Your task to perform on an android device: turn on the 12-hour format for clock Image 0: 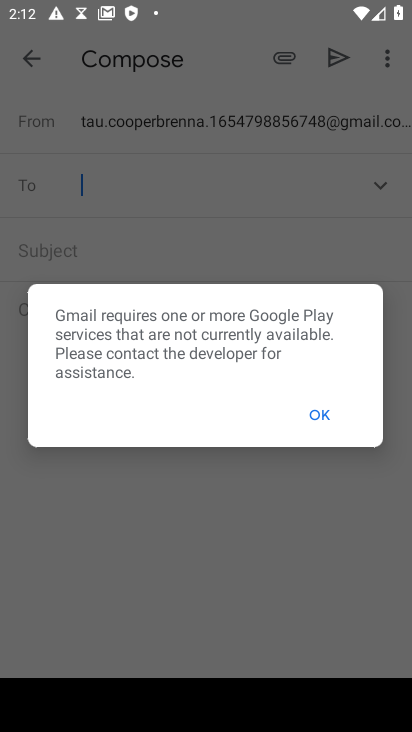
Step 0: press home button
Your task to perform on an android device: turn on the 12-hour format for clock Image 1: 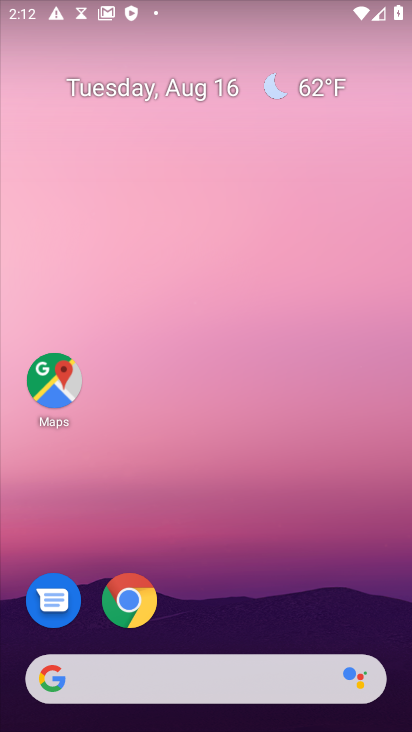
Step 1: drag from (222, 683) to (189, 10)
Your task to perform on an android device: turn on the 12-hour format for clock Image 2: 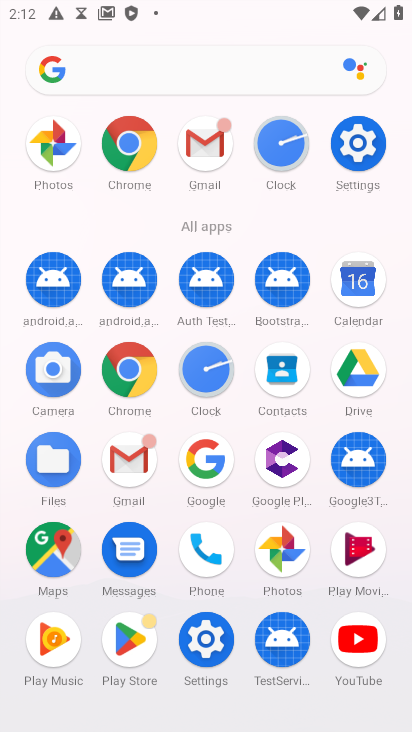
Step 2: click (282, 156)
Your task to perform on an android device: turn on the 12-hour format for clock Image 3: 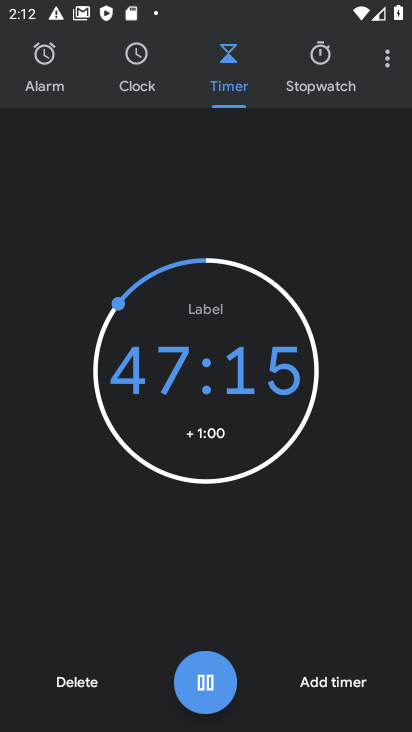
Step 3: press home button
Your task to perform on an android device: turn on the 12-hour format for clock Image 4: 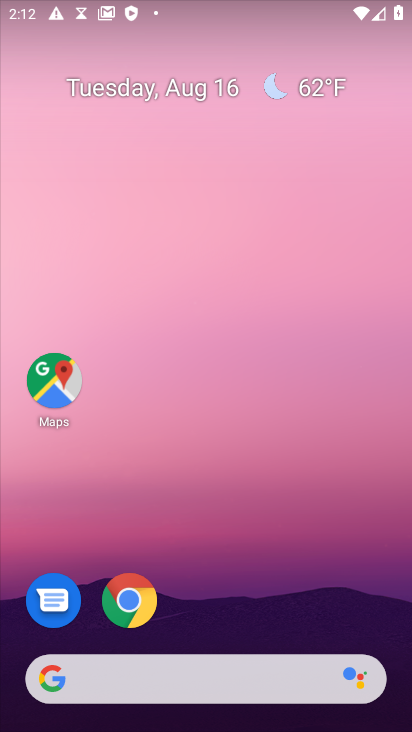
Step 4: drag from (152, 683) to (298, 186)
Your task to perform on an android device: turn on the 12-hour format for clock Image 5: 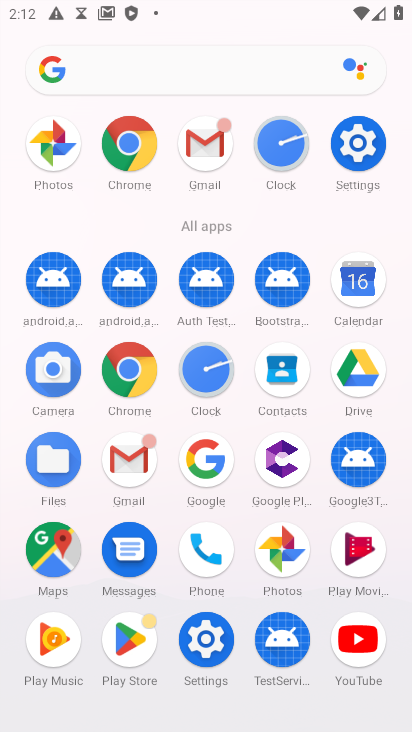
Step 5: click (345, 155)
Your task to perform on an android device: turn on the 12-hour format for clock Image 6: 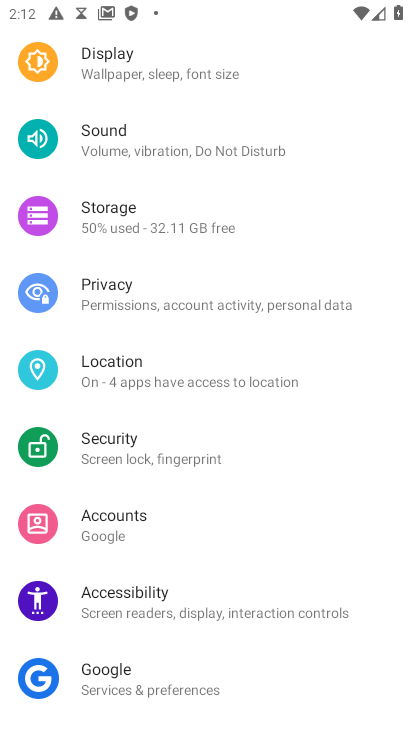
Step 6: drag from (321, 647) to (257, 19)
Your task to perform on an android device: turn on the 12-hour format for clock Image 7: 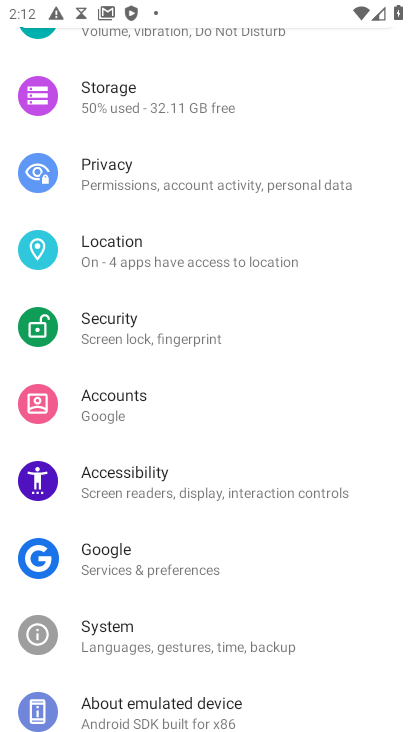
Step 7: click (158, 625)
Your task to perform on an android device: turn on the 12-hour format for clock Image 8: 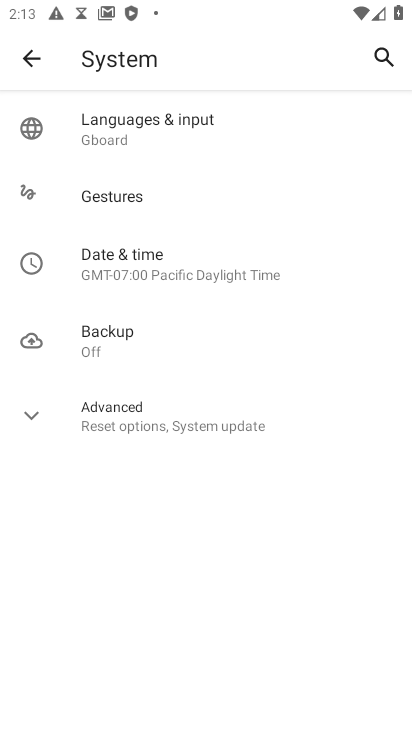
Step 8: click (172, 282)
Your task to perform on an android device: turn on the 12-hour format for clock Image 9: 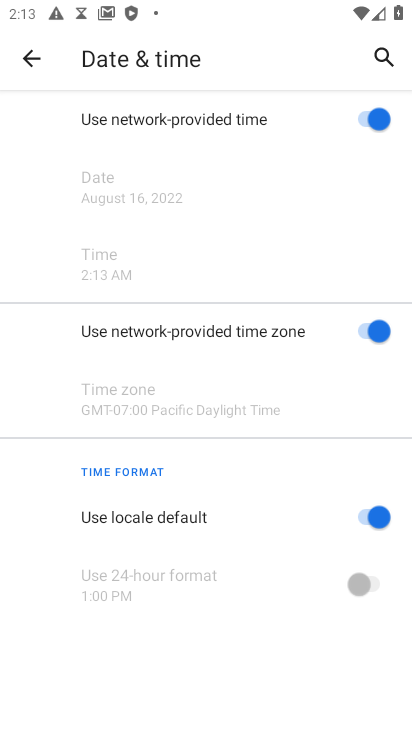
Step 9: task complete